Your task to perform on an android device: open the mobile data screen to see how much data has been used Image 0: 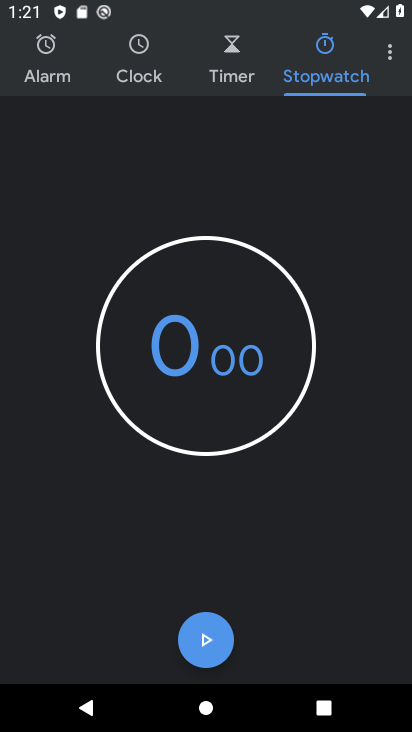
Step 0: press home button
Your task to perform on an android device: open the mobile data screen to see how much data has been used Image 1: 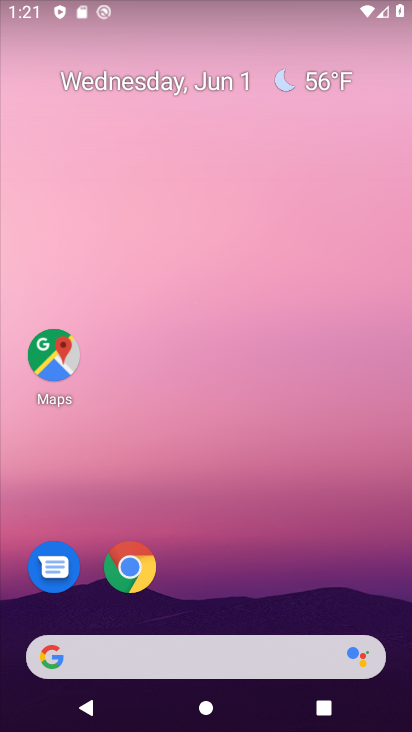
Step 1: drag from (157, 650) to (327, 2)
Your task to perform on an android device: open the mobile data screen to see how much data has been used Image 2: 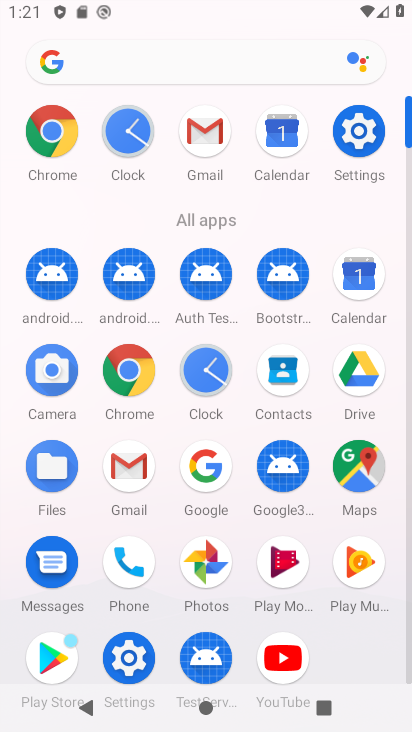
Step 2: click (364, 127)
Your task to perform on an android device: open the mobile data screen to see how much data has been used Image 3: 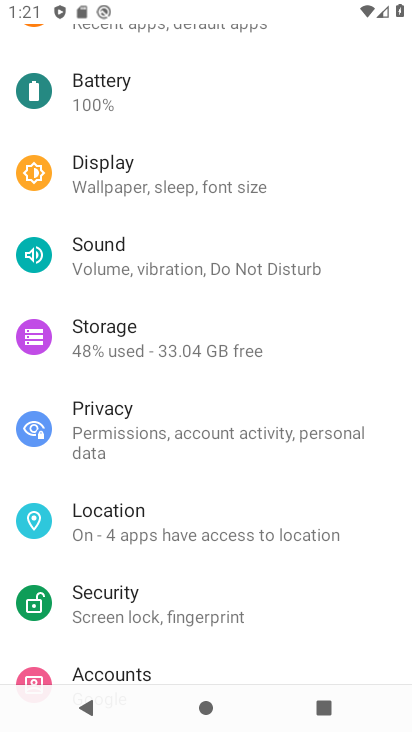
Step 3: drag from (182, 155) to (199, 650)
Your task to perform on an android device: open the mobile data screen to see how much data has been used Image 4: 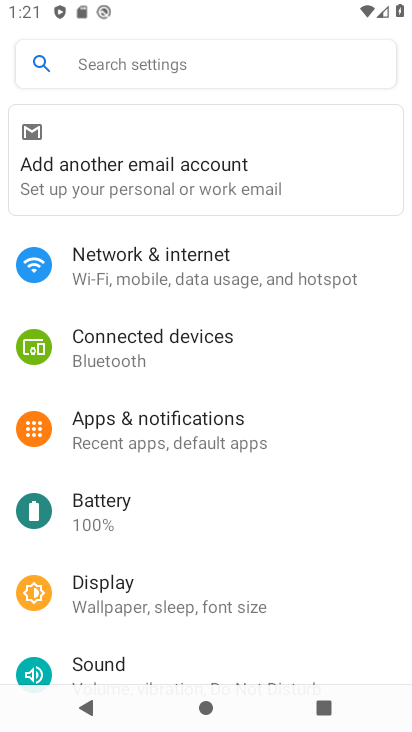
Step 4: click (144, 278)
Your task to perform on an android device: open the mobile data screen to see how much data has been used Image 5: 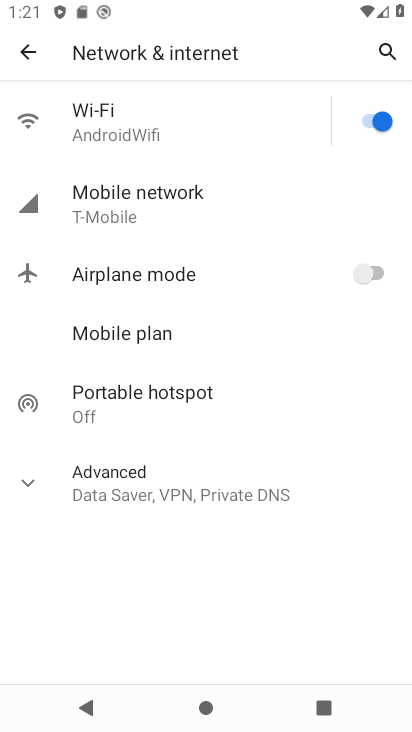
Step 5: click (123, 210)
Your task to perform on an android device: open the mobile data screen to see how much data has been used Image 6: 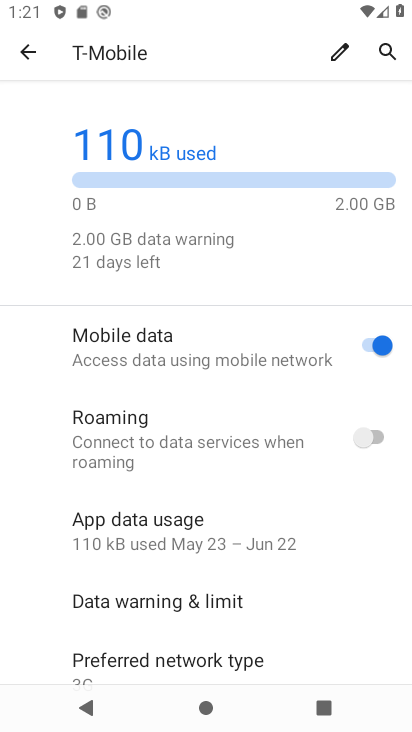
Step 6: task complete